Your task to perform on an android device: set an alarm Image 0: 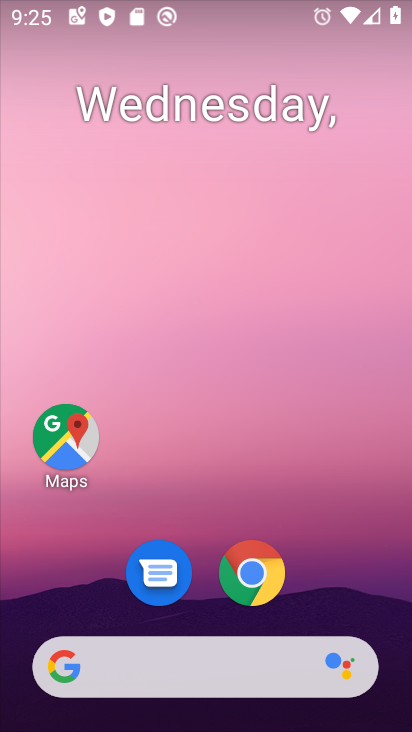
Step 0: drag from (252, 627) to (207, 243)
Your task to perform on an android device: set an alarm Image 1: 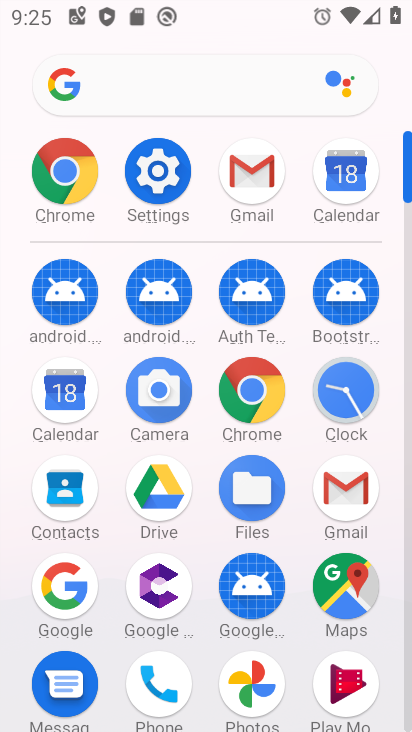
Step 1: click (353, 413)
Your task to perform on an android device: set an alarm Image 2: 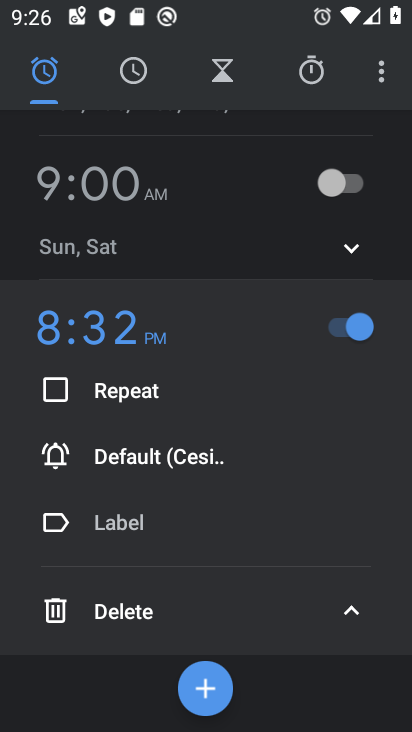
Step 2: click (209, 701)
Your task to perform on an android device: set an alarm Image 3: 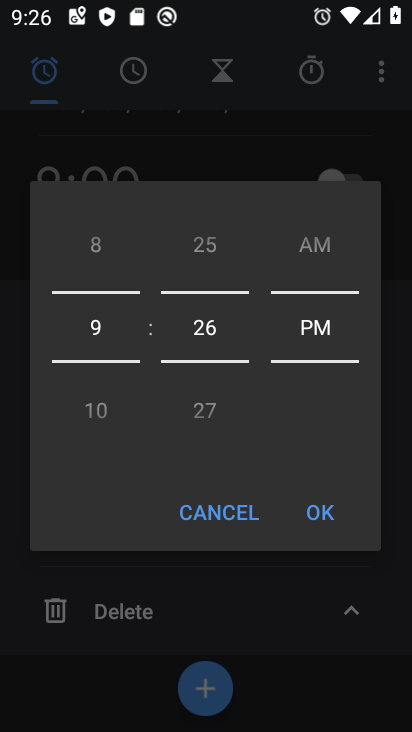
Step 3: click (314, 514)
Your task to perform on an android device: set an alarm Image 4: 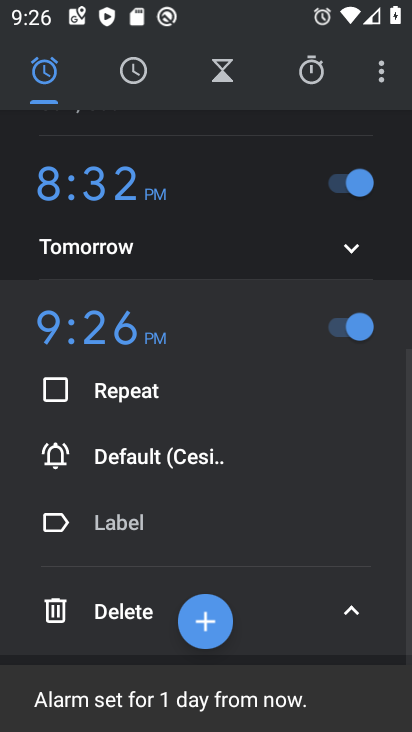
Step 4: task complete